Your task to perform on an android device: What's on my calendar tomorrow? Image 0: 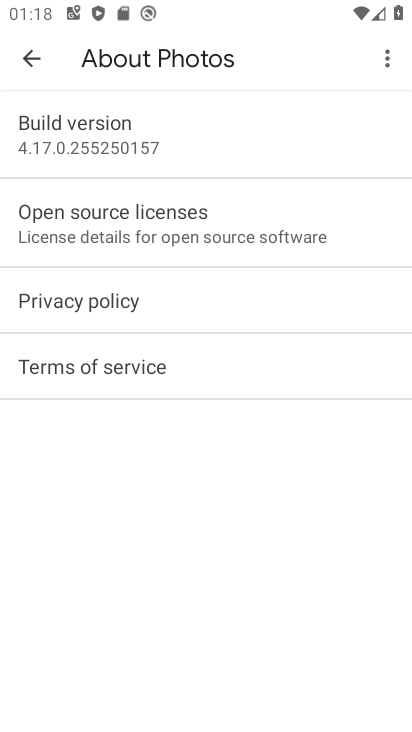
Step 0: press home button
Your task to perform on an android device: What's on my calendar tomorrow? Image 1: 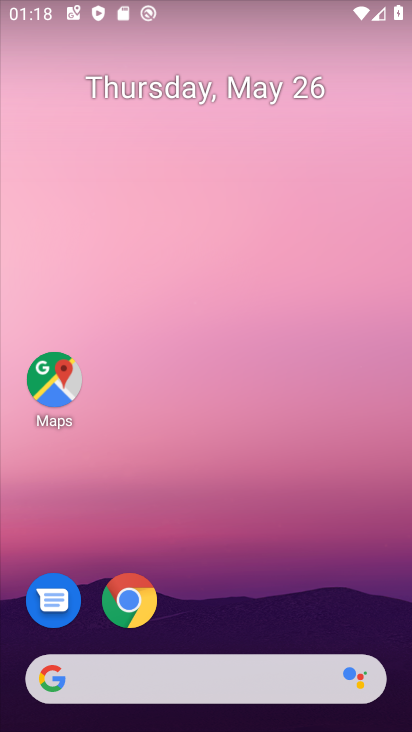
Step 1: drag from (274, 564) to (284, 29)
Your task to perform on an android device: What's on my calendar tomorrow? Image 2: 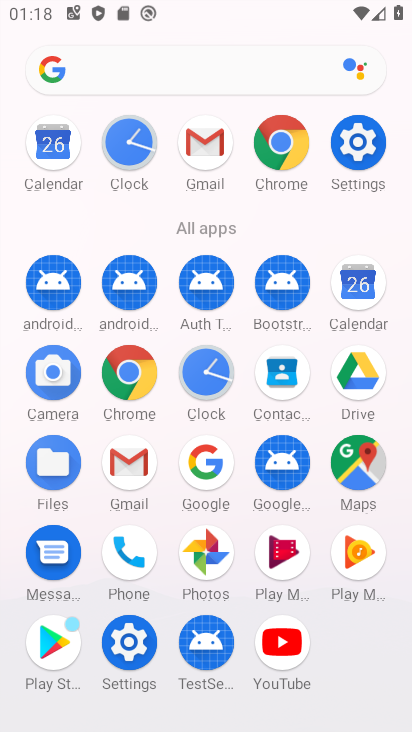
Step 2: click (366, 307)
Your task to perform on an android device: What's on my calendar tomorrow? Image 3: 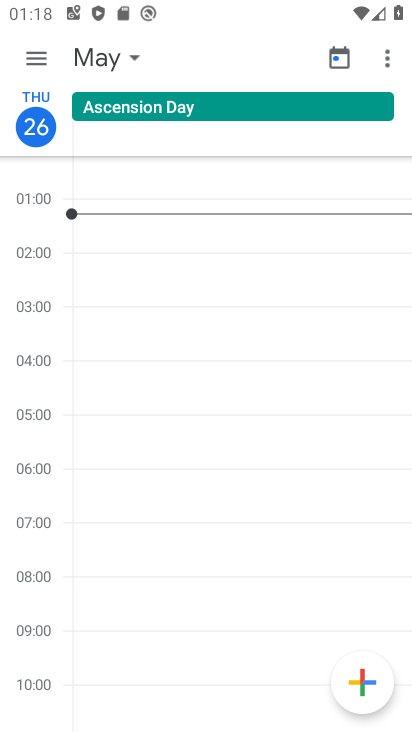
Step 3: click (29, 67)
Your task to perform on an android device: What's on my calendar tomorrow? Image 4: 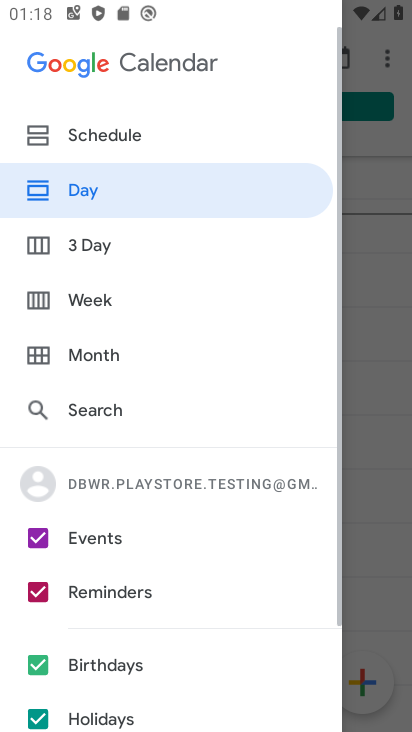
Step 4: click (75, 360)
Your task to perform on an android device: What's on my calendar tomorrow? Image 5: 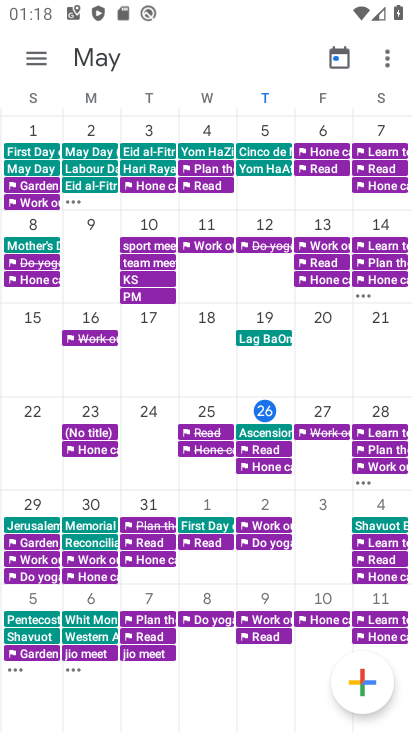
Step 5: click (318, 453)
Your task to perform on an android device: What's on my calendar tomorrow? Image 6: 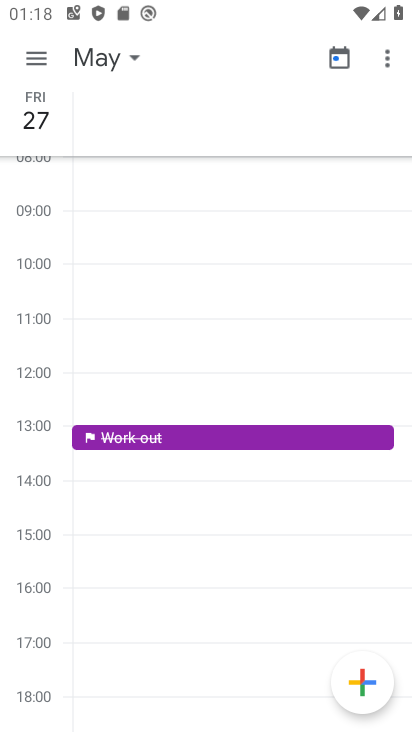
Step 6: task complete